Your task to perform on an android device: Clear the cart on newegg.com. Add "razer thresher" to the cart on newegg.com Image 0: 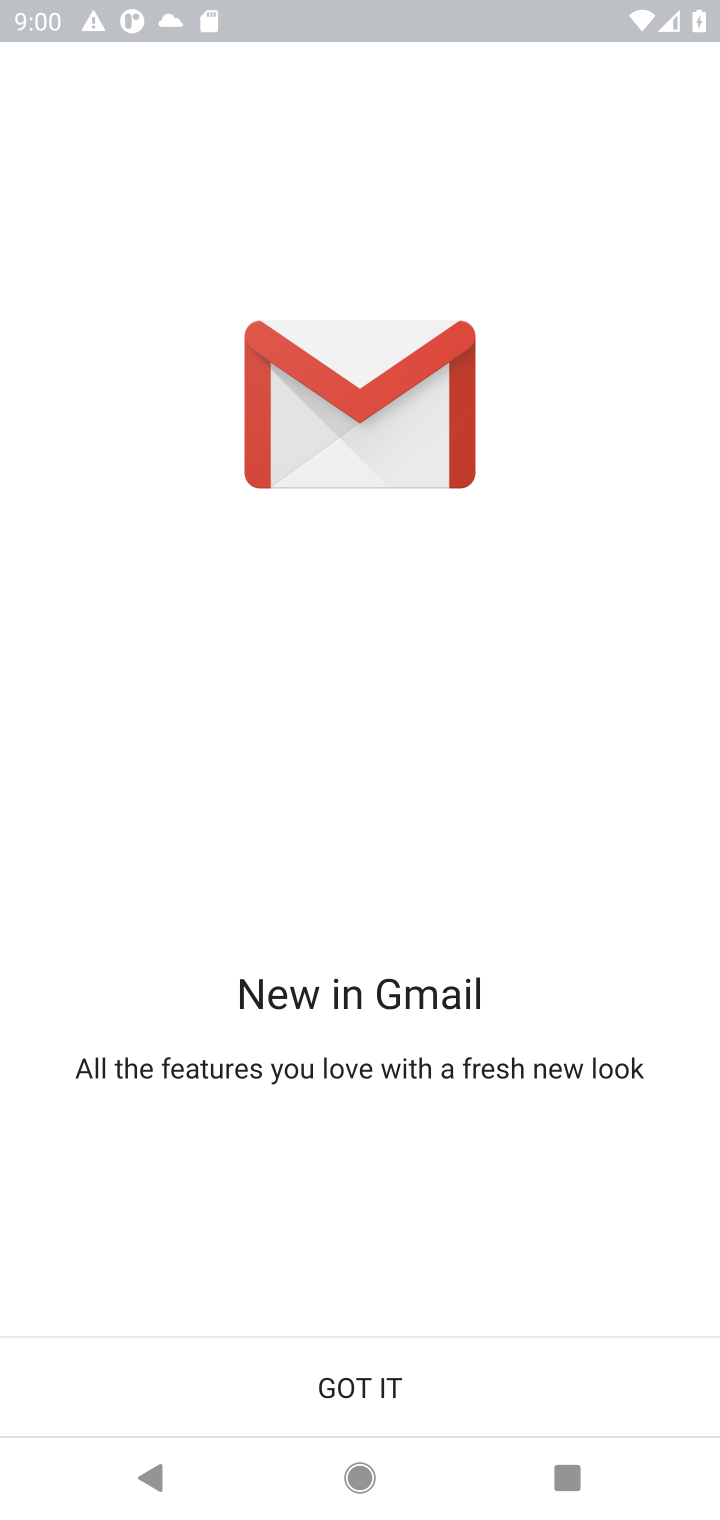
Step 0: press home button
Your task to perform on an android device: Clear the cart on newegg.com. Add "razer thresher" to the cart on newegg.com Image 1: 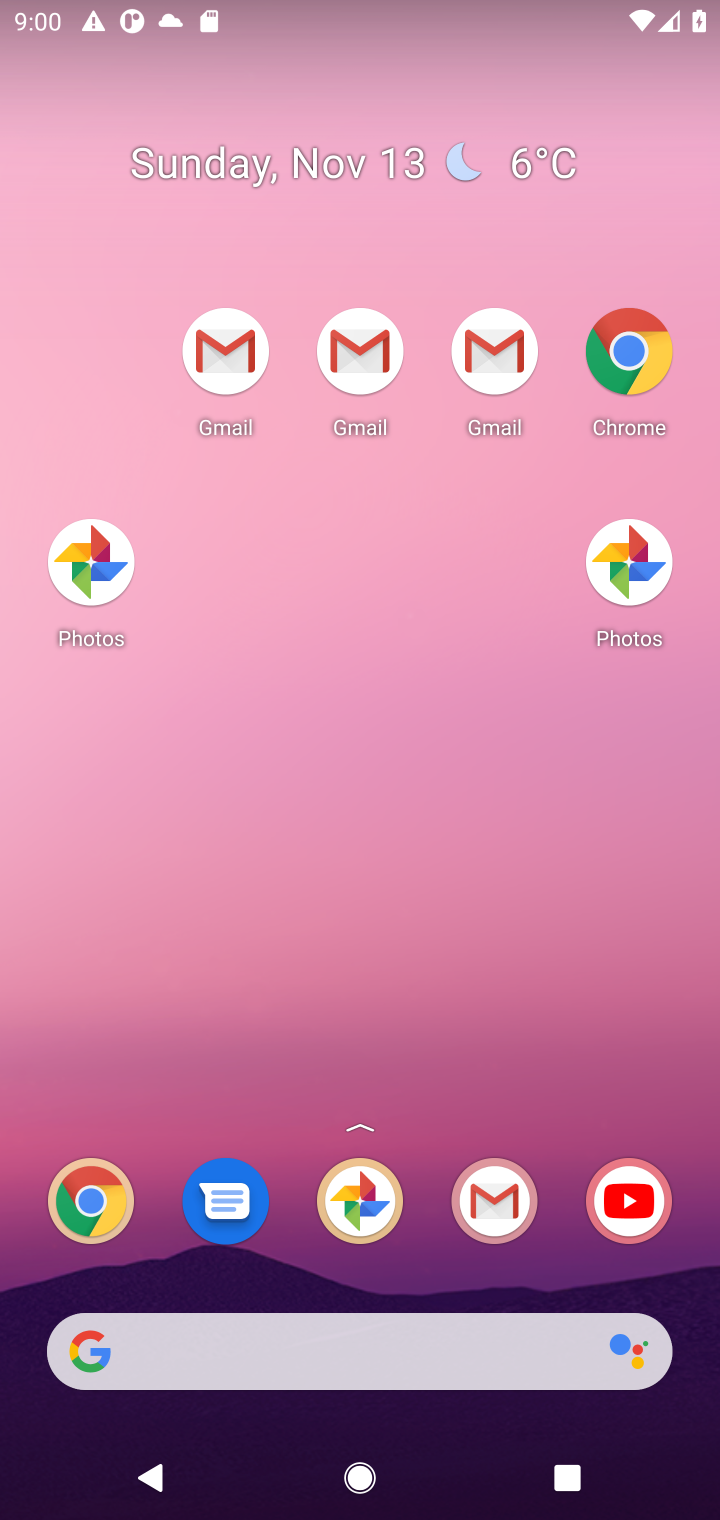
Step 1: drag from (419, 1240) to (412, 330)
Your task to perform on an android device: Clear the cart on newegg.com. Add "razer thresher" to the cart on newegg.com Image 2: 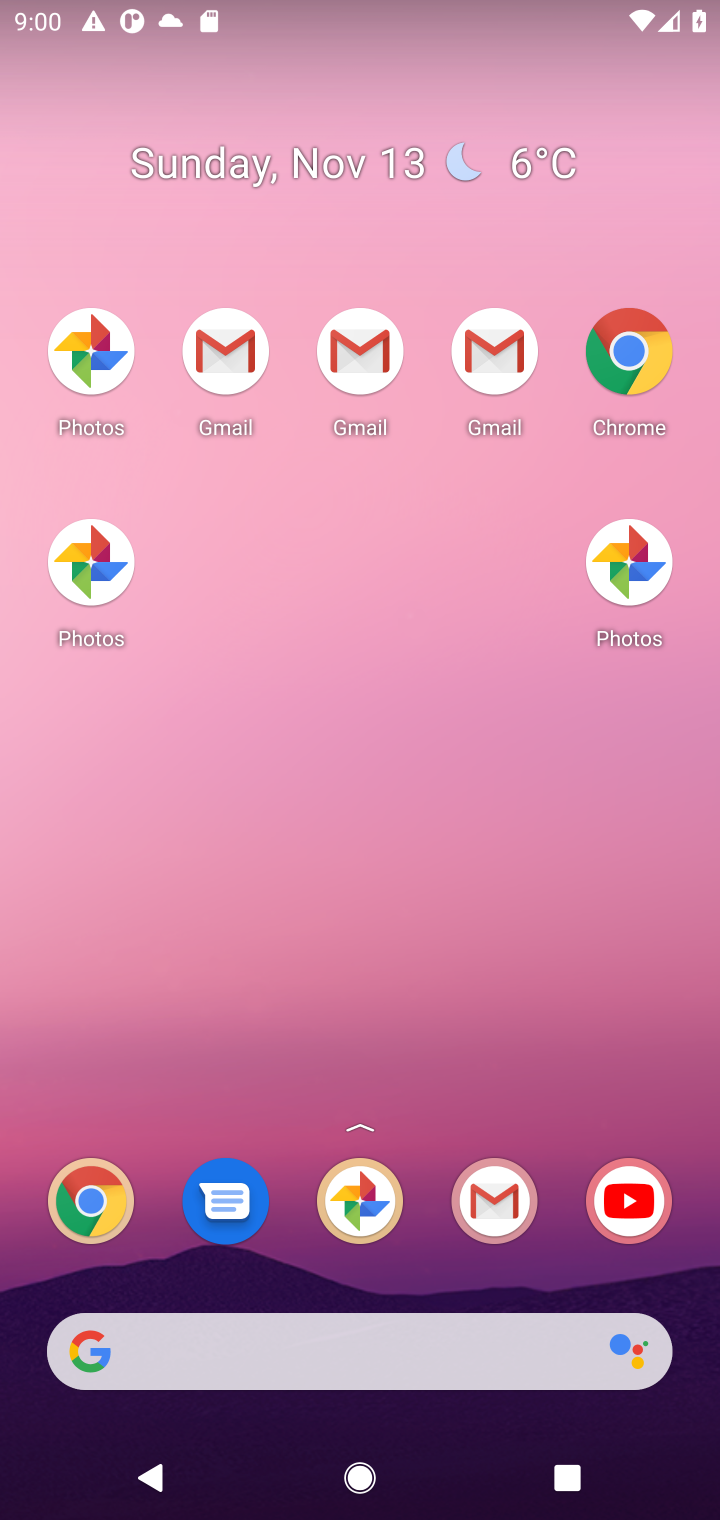
Step 2: drag from (437, 1117) to (478, 268)
Your task to perform on an android device: Clear the cart on newegg.com. Add "razer thresher" to the cart on newegg.com Image 3: 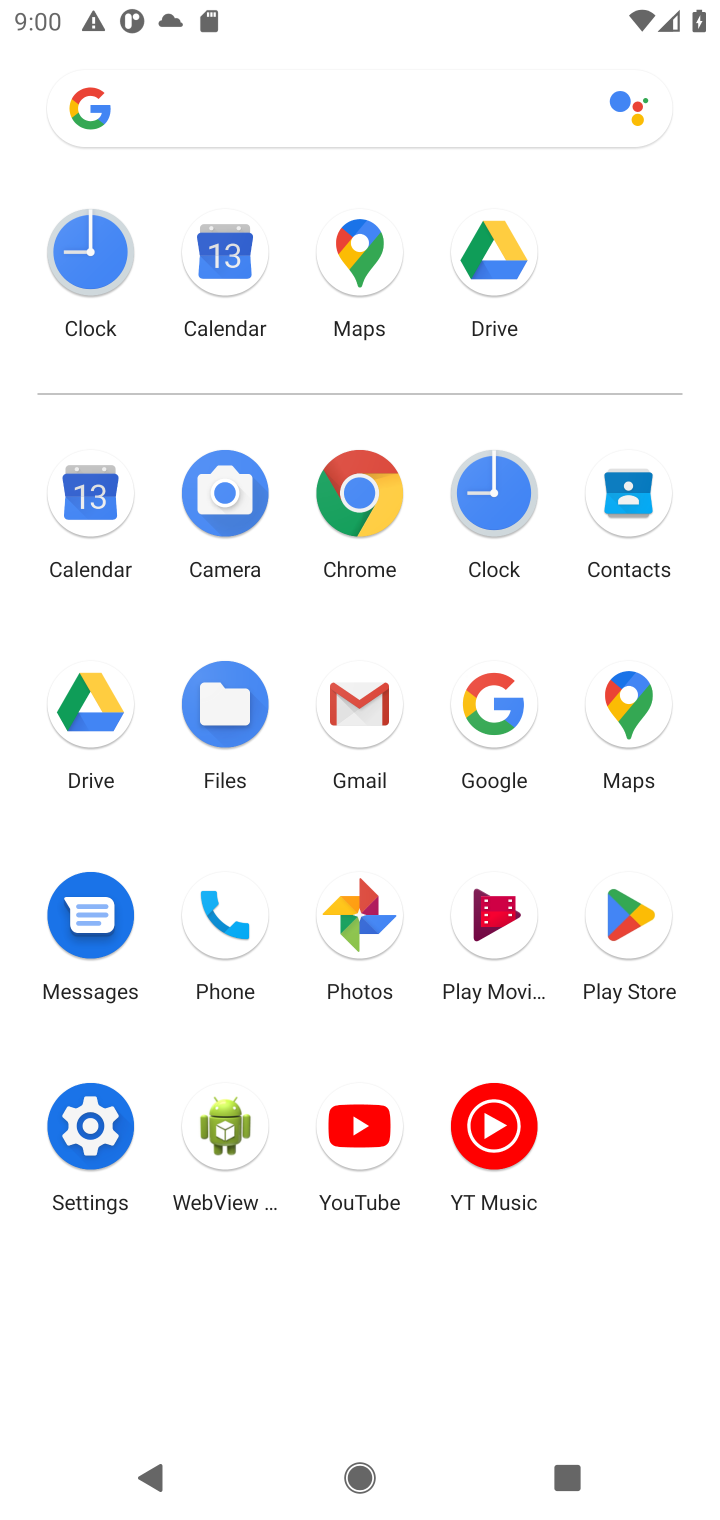
Step 3: click (359, 493)
Your task to perform on an android device: Clear the cart on newegg.com. Add "razer thresher" to the cart on newegg.com Image 4: 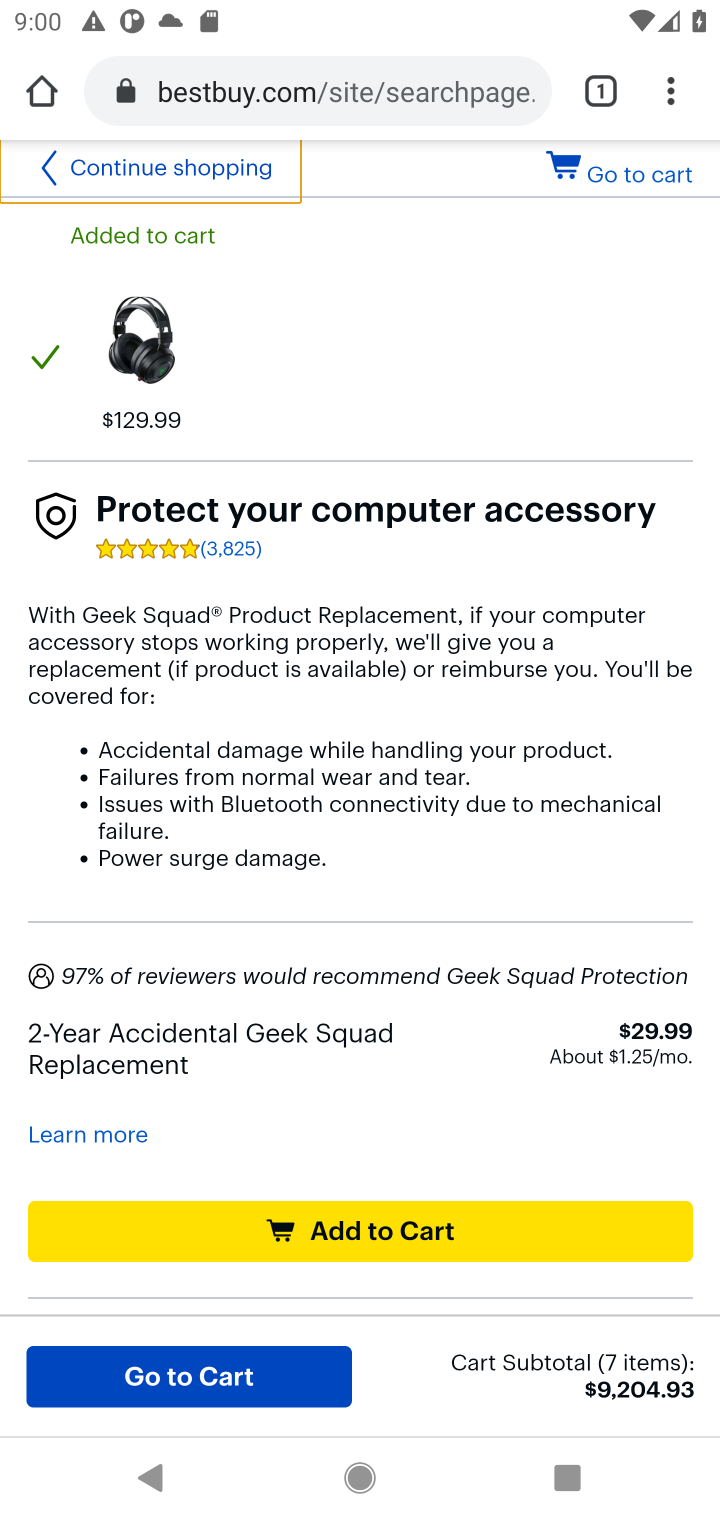
Step 4: click (422, 80)
Your task to perform on an android device: Clear the cart on newegg.com. Add "razer thresher" to the cart on newegg.com Image 5: 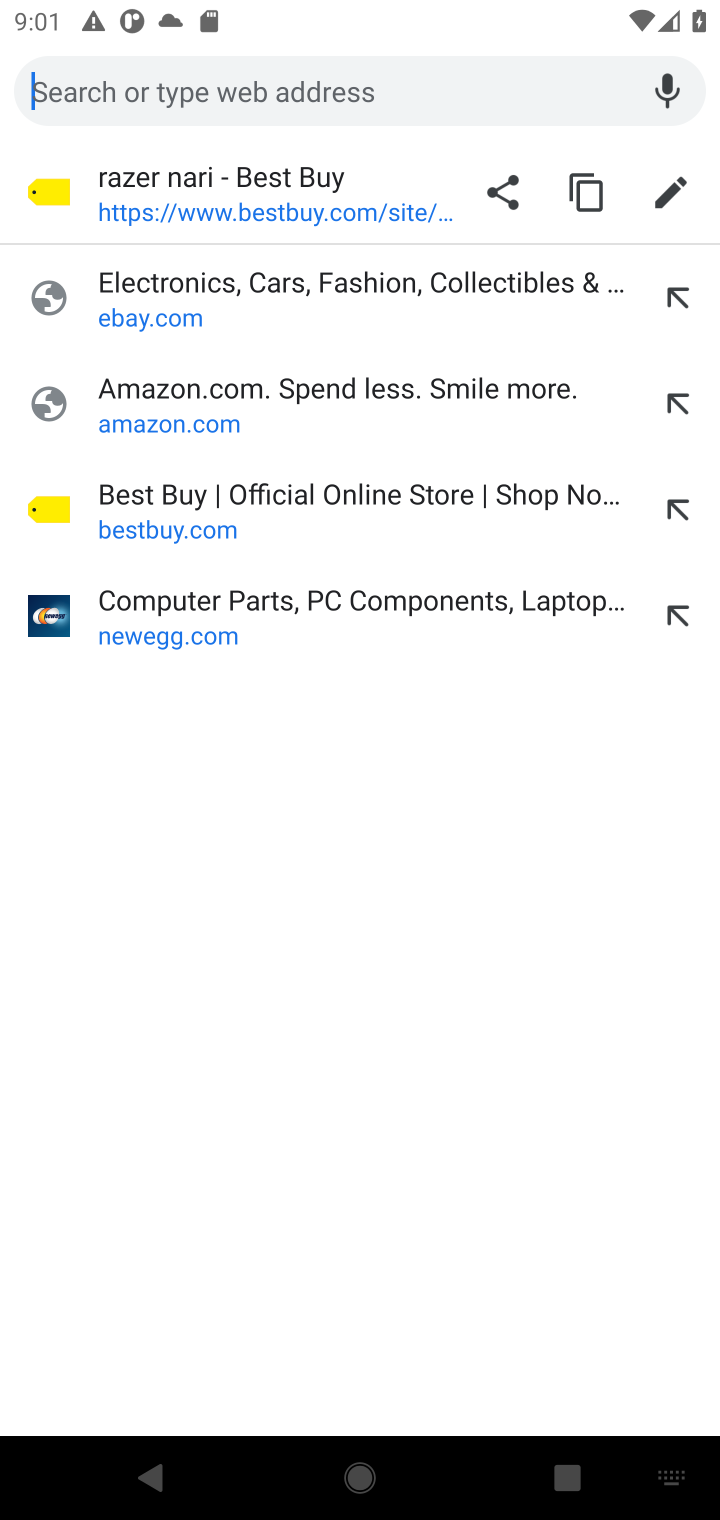
Step 5: click (214, 80)
Your task to perform on an android device: Clear the cart on newegg.com. Add "razer thresher" to the cart on newegg.com Image 6: 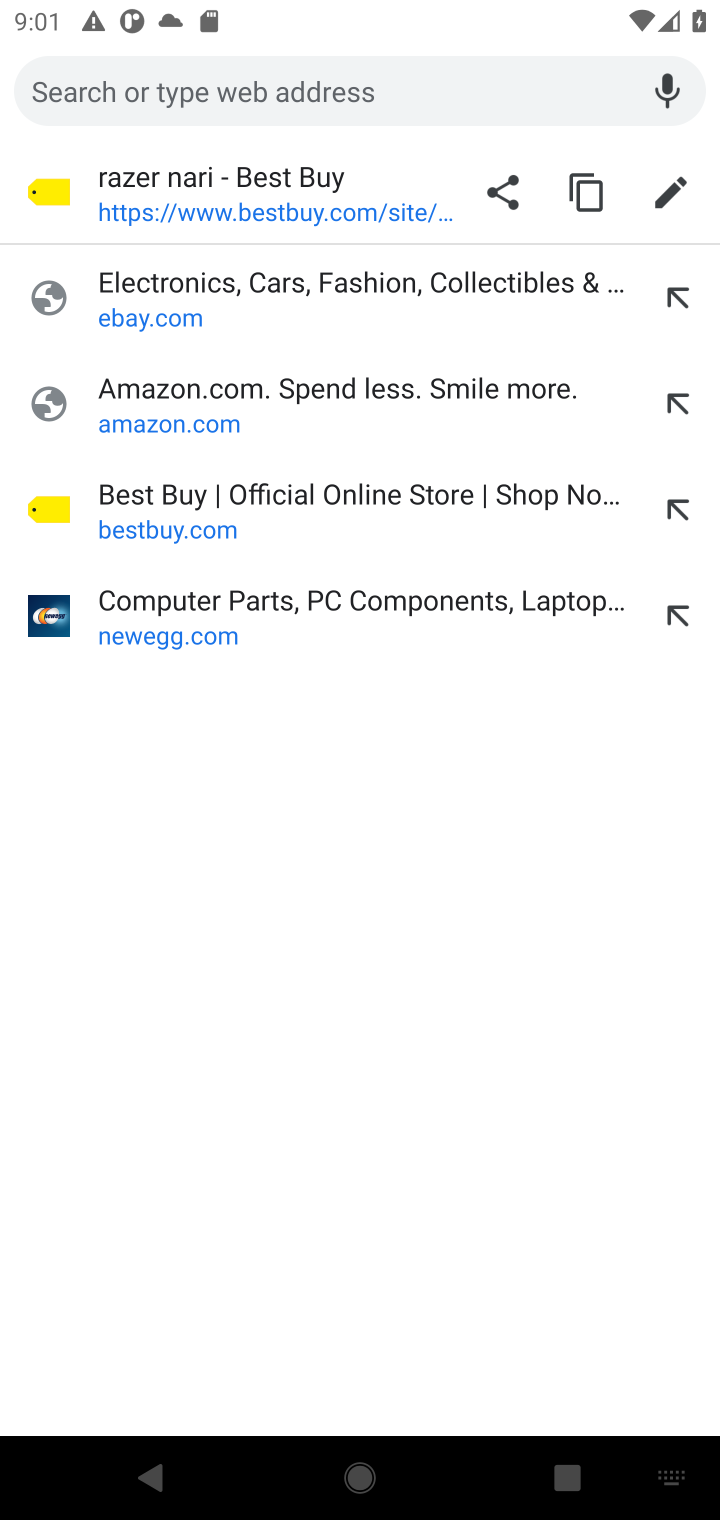
Step 6: type "newegg.com"
Your task to perform on an android device: Clear the cart on newegg.com. Add "razer thresher" to the cart on newegg.com Image 7: 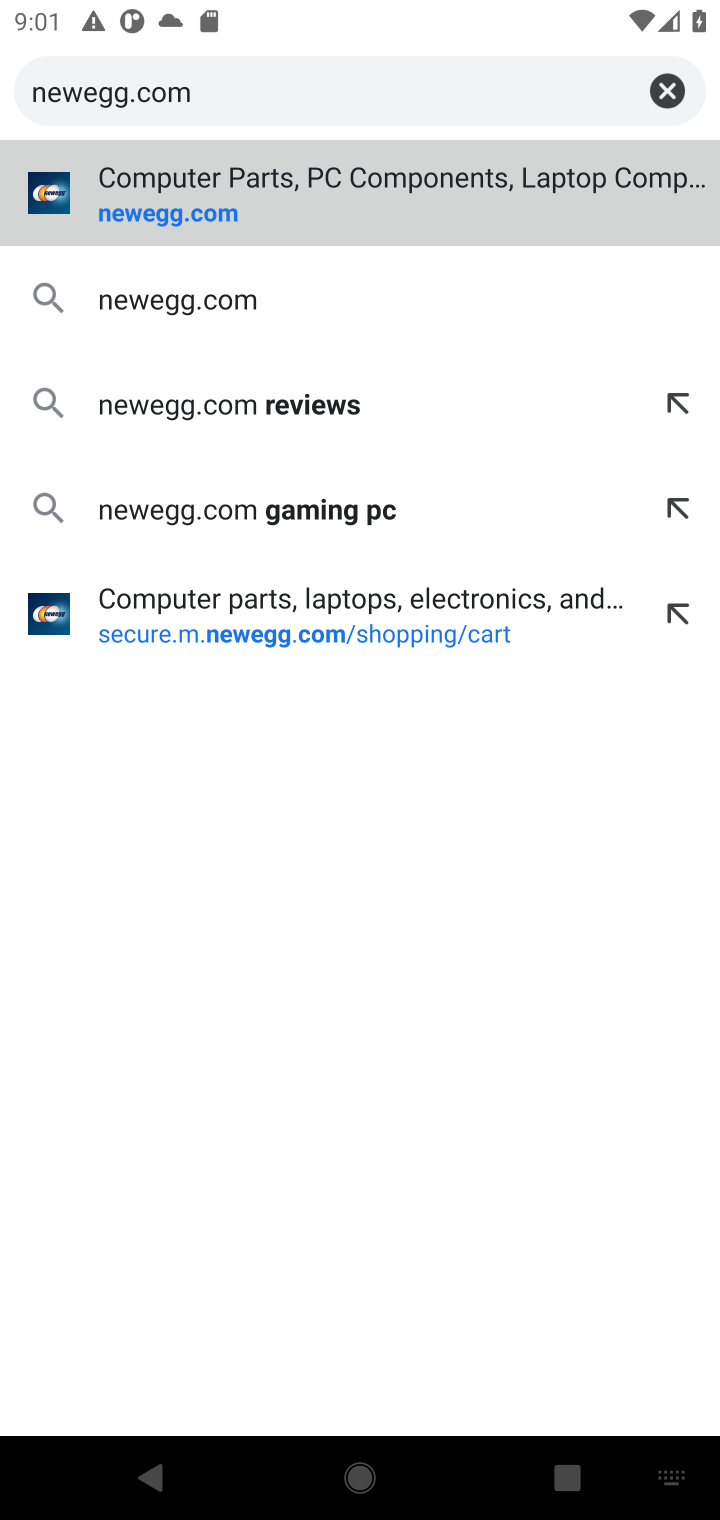
Step 7: press enter
Your task to perform on an android device: Clear the cart on newegg.com. Add "razer thresher" to the cart on newegg.com Image 8: 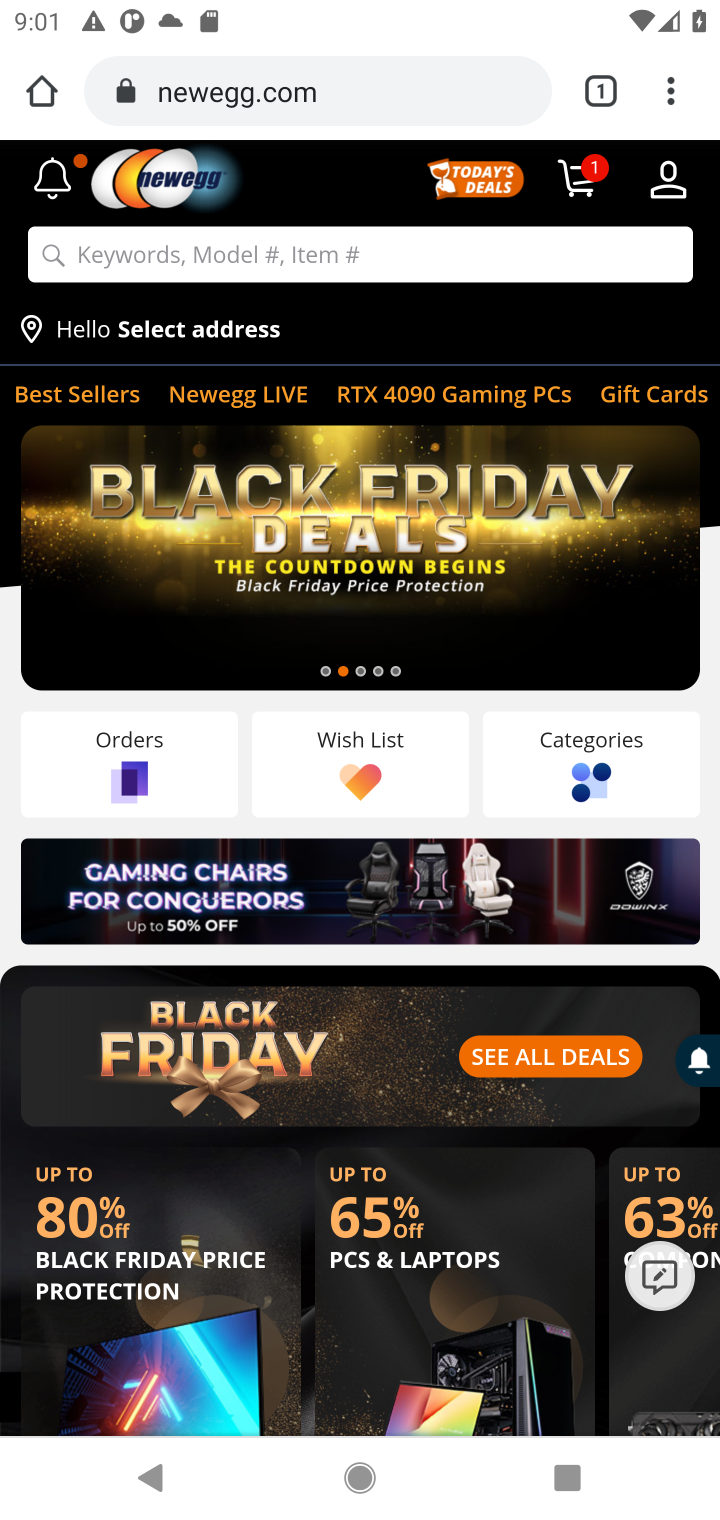
Step 8: click (579, 175)
Your task to perform on an android device: Clear the cart on newegg.com. Add "razer thresher" to the cart on newegg.com Image 9: 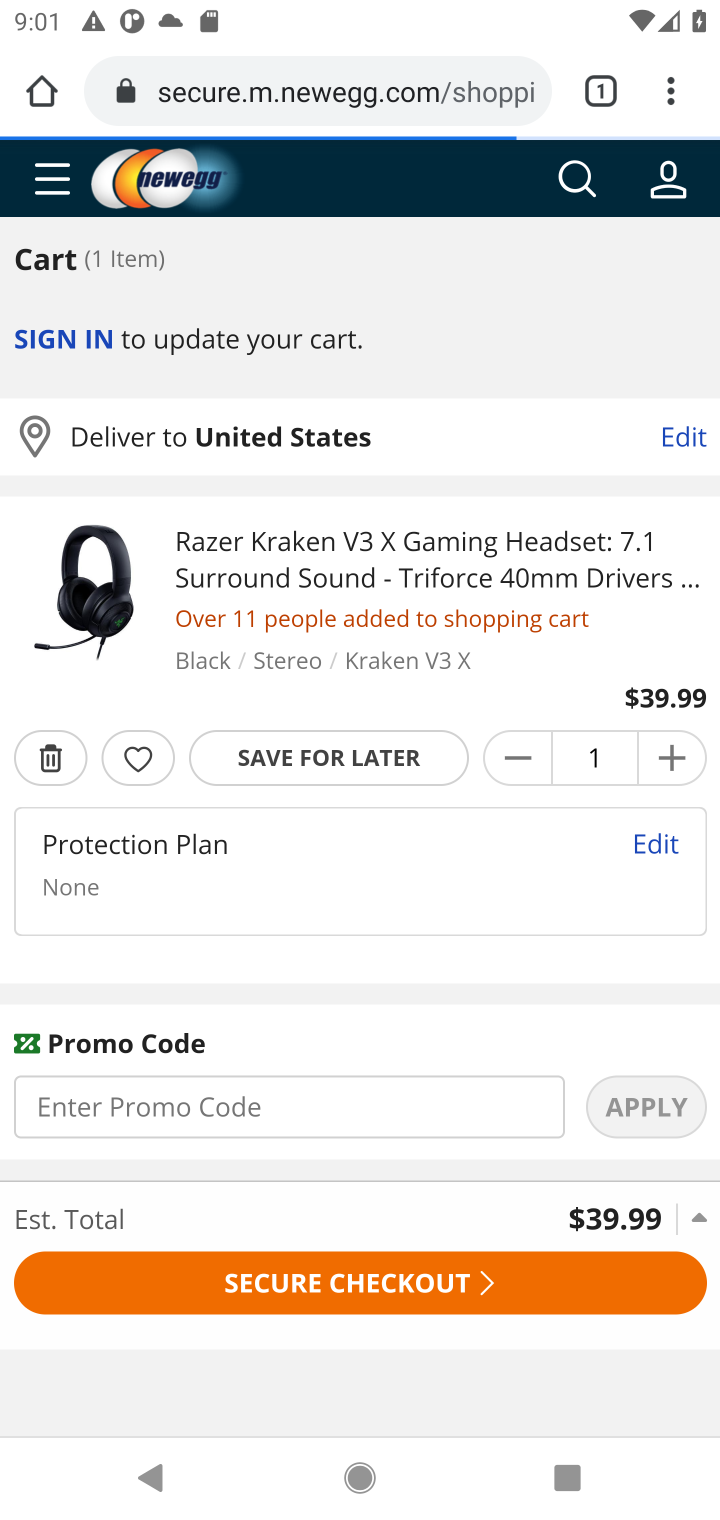
Step 9: click (35, 763)
Your task to perform on an android device: Clear the cart on newegg.com. Add "razer thresher" to the cart on newegg.com Image 10: 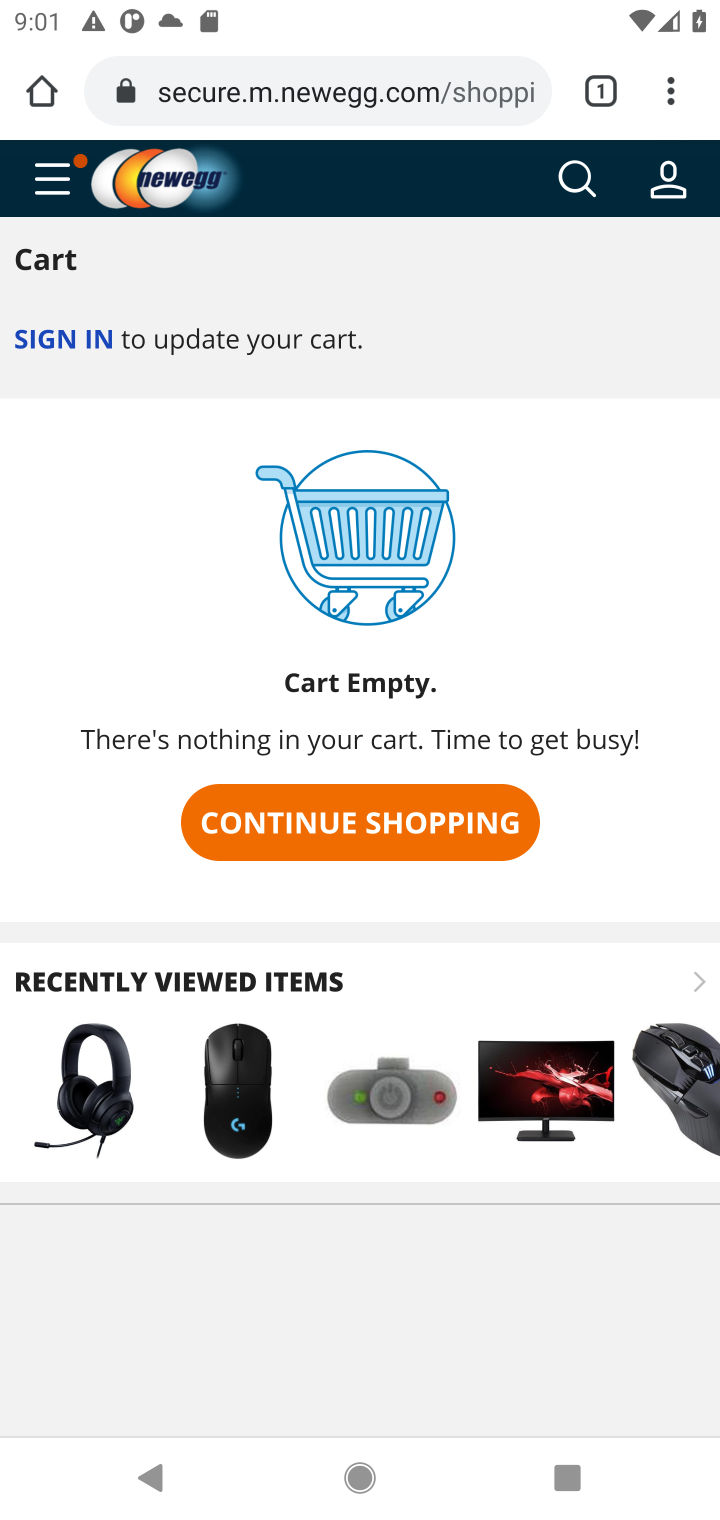
Step 10: click (423, 823)
Your task to perform on an android device: Clear the cart on newegg.com. Add "razer thresher" to the cart on newegg.com Image 11: 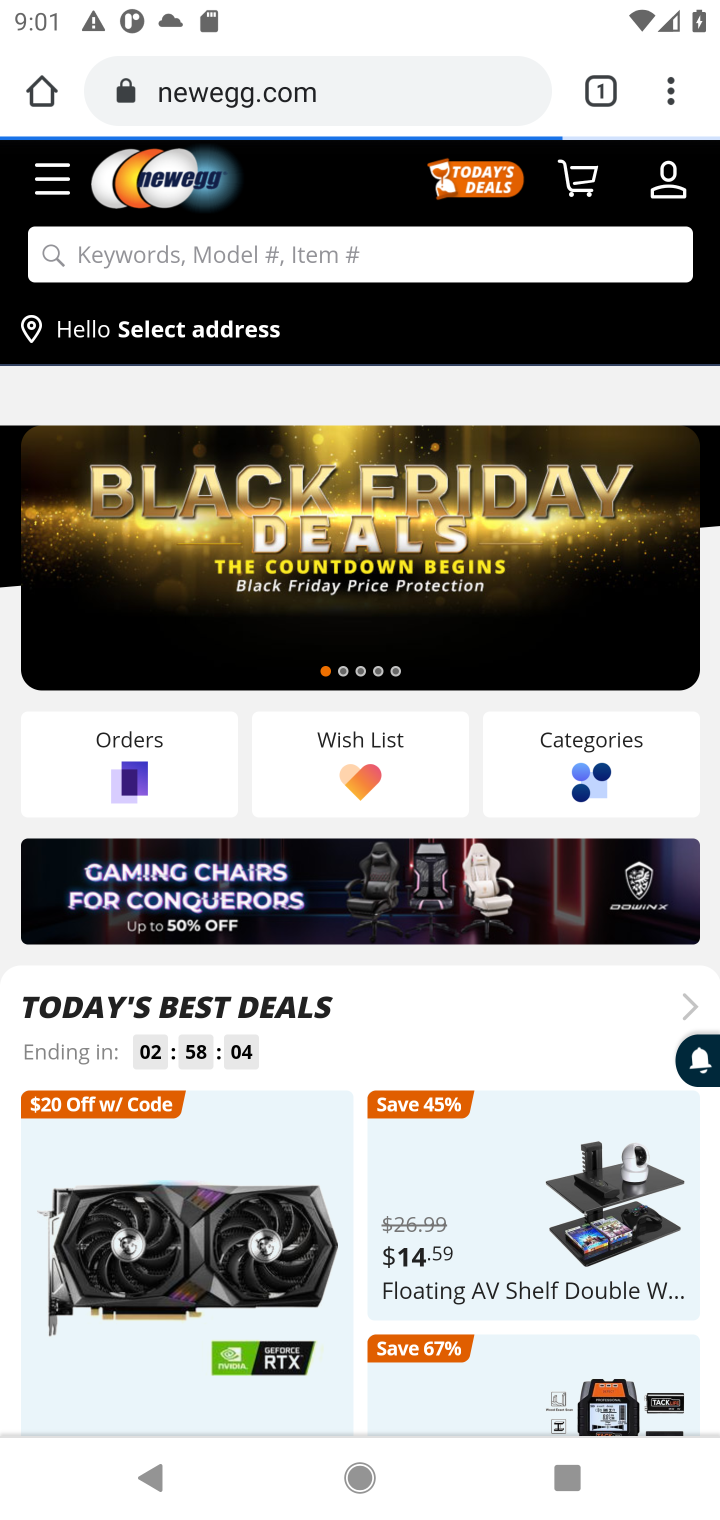
Step 11: click (398, 259)
Your task to perform on an android device: Clear the cart on newegg.com. Add "razer thresher" to the cart on newegg.com Image 12: 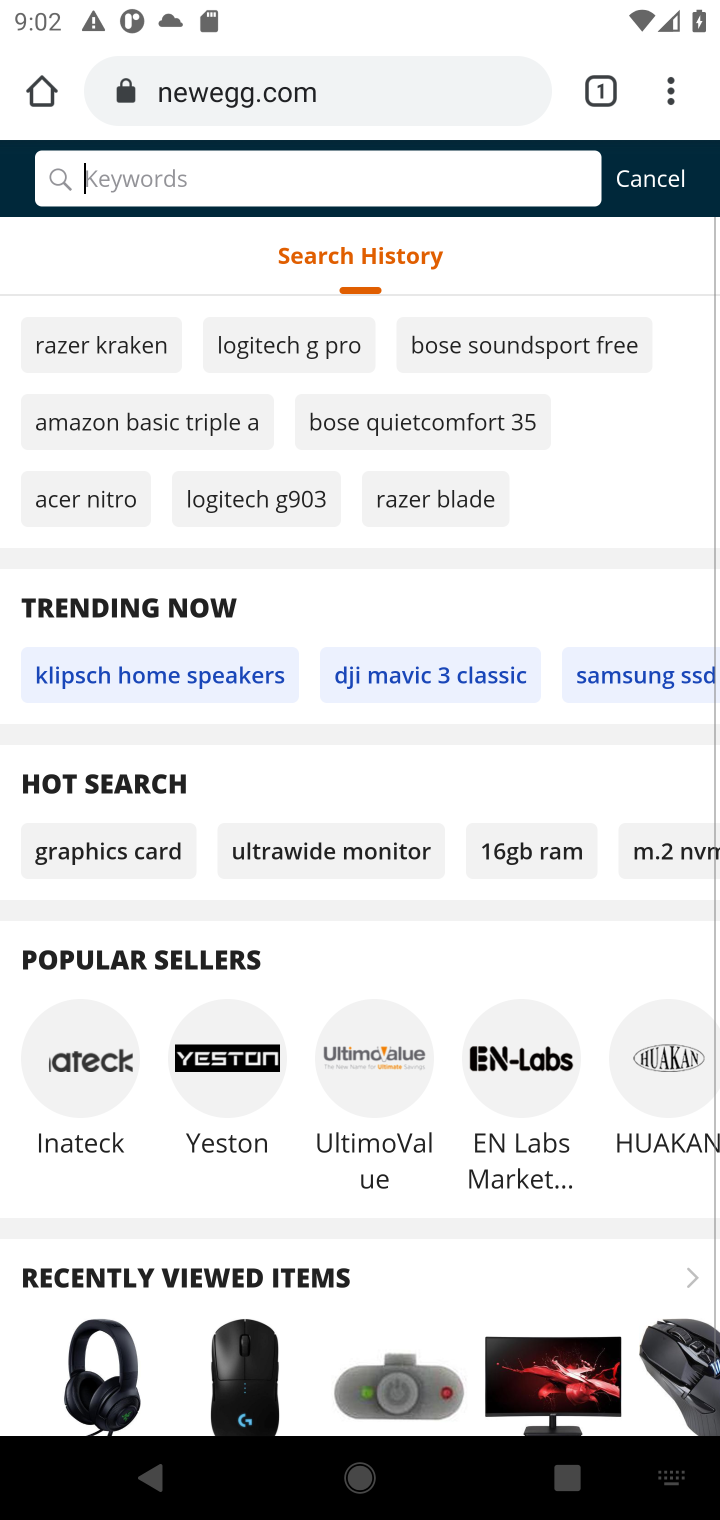
Step 12: type "razer thresher"
Your task to perform on an android device: Clear the cart on newegg.com. Add "razer thresher" to the cart on newegg.com Image 13: 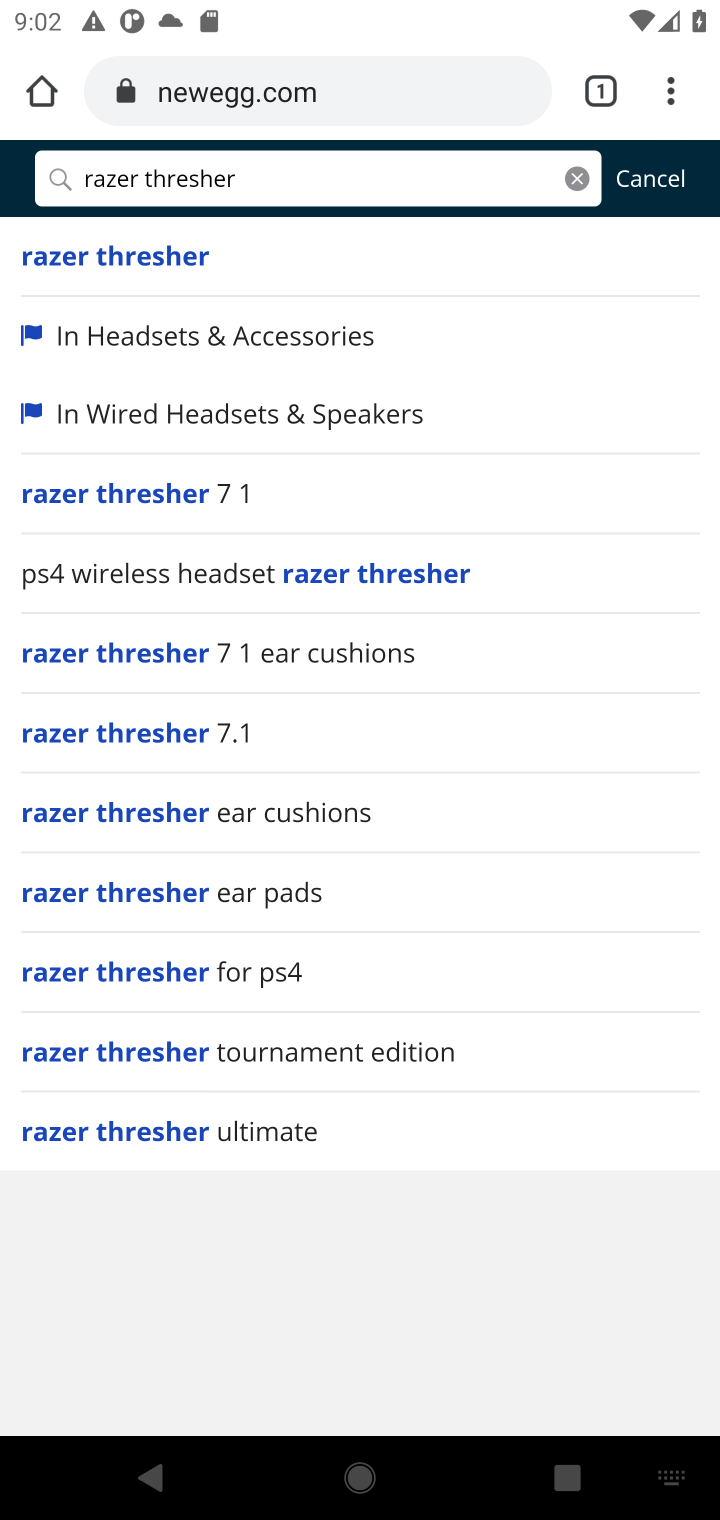
Step 13: press enter
Your task to perform on an android device: Clear the cart on newegg.com. Add "razer thresher" to the cart on newegg.com Image 14: 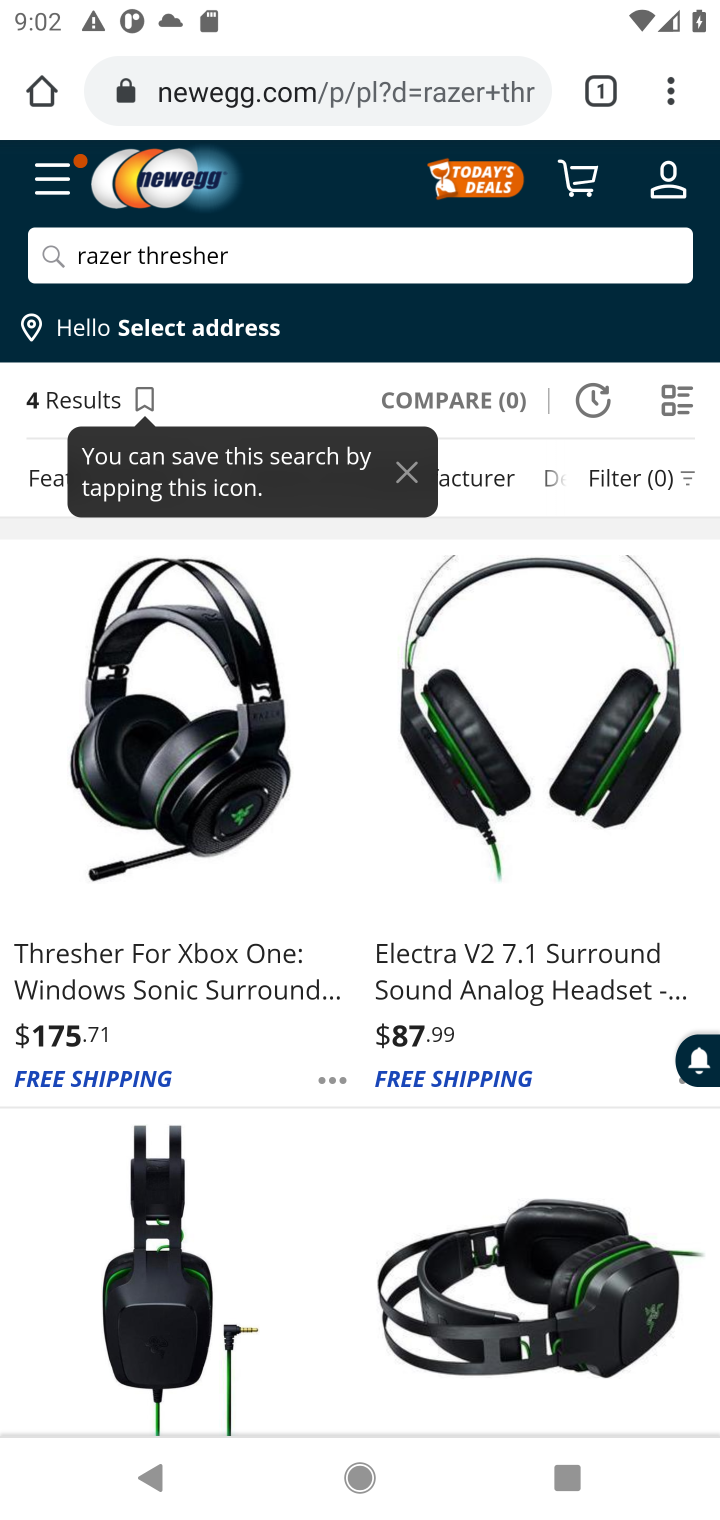
Step 14: task complete